Your task to perform on an android device: open device folders in google photos Image 0: 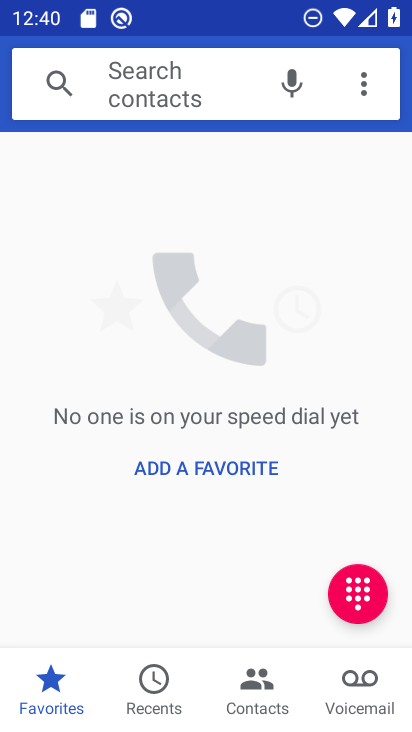
Step 0: press home button
Your task to perform on an android device: open device folders in google photos Image 1: 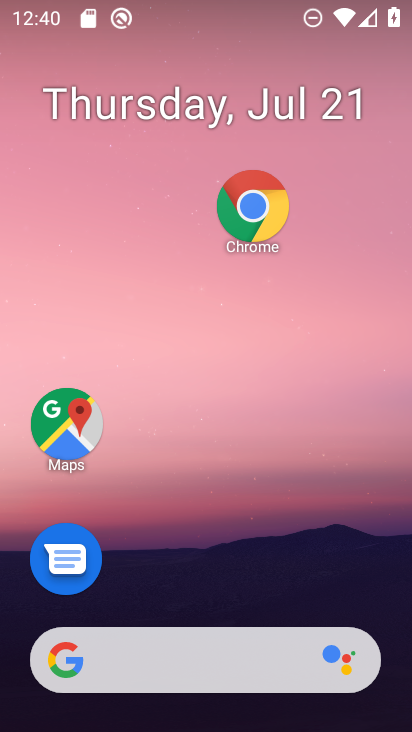
Step 1: drag from (197, 650) to (304, 127)
Your task to perform on an android device: open device folders in google photos Image 2: 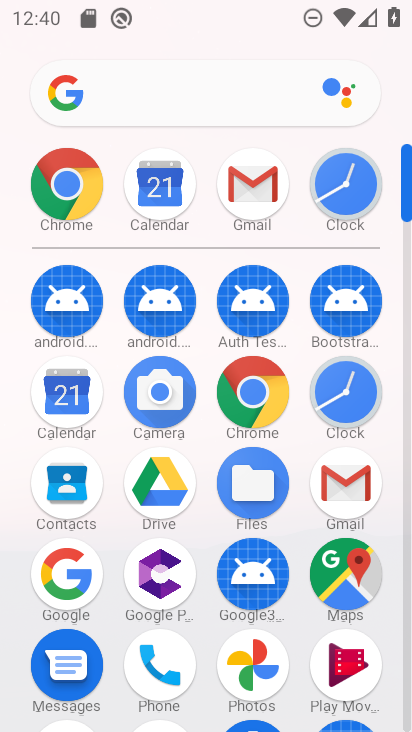
Step 2: click (264, 667)
Your task to perform on an android device: open device folders in google photos Image 3: 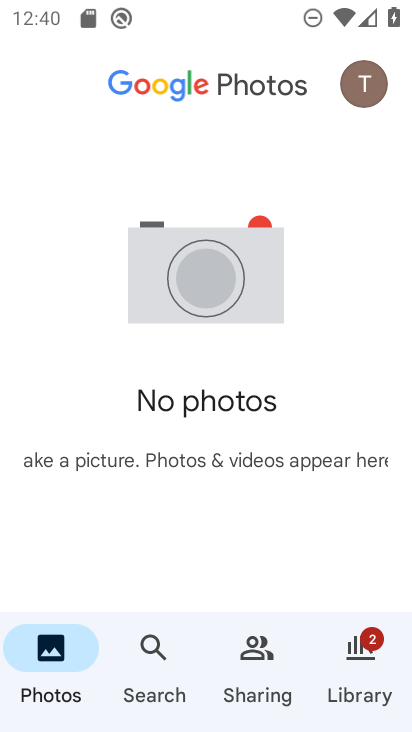
Step 3: click (355, 110)
Your task to perform on an android device: open device folders in google photos Image 4: 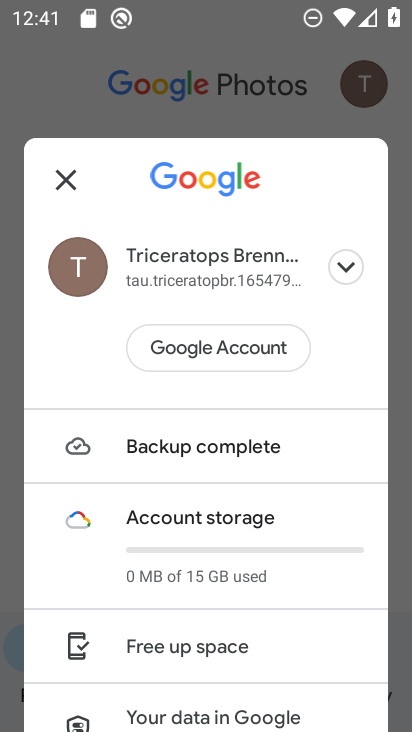
Step 4: task complete